Your task to perform on an android device: open a new tab in the chrome app Image 0: 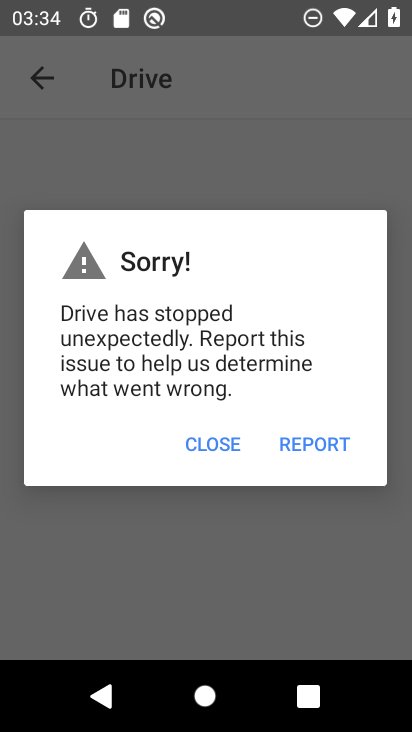
Step 0: press back button
Your task to perform on an android device: open a new tab in the chrome app Image 1: 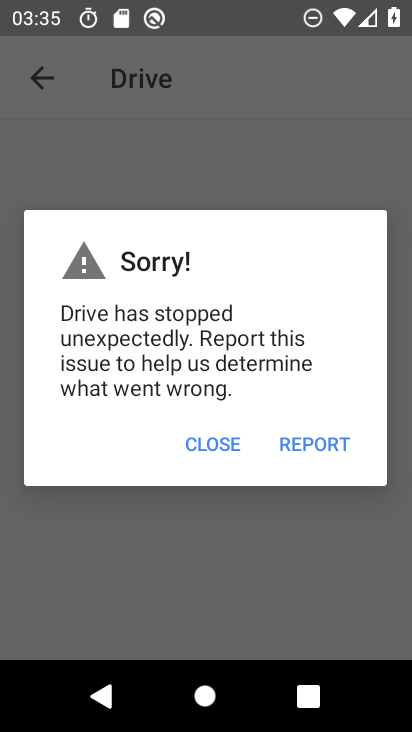
Step 1: press back button
Your task to perform on an android device: open a new tab in the chrome app Image 2: 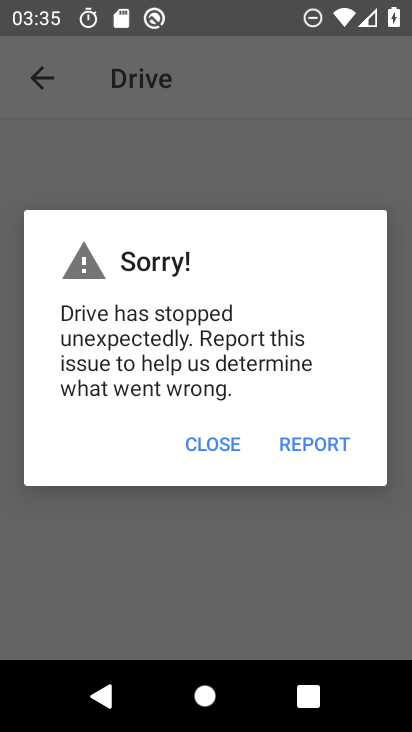
Step 2: press home button
Your task to perform on an android device: open a new tab in the chrome app Image 3: 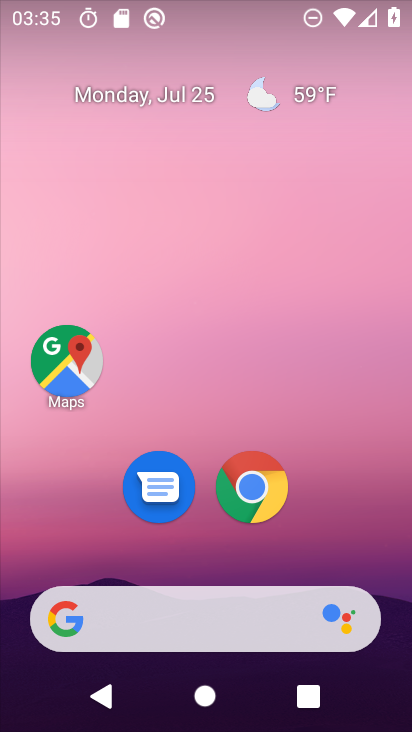
Step 3: click (245, 484)
Your task to perform on an android device: open a new tab in the chrome app Image 4: 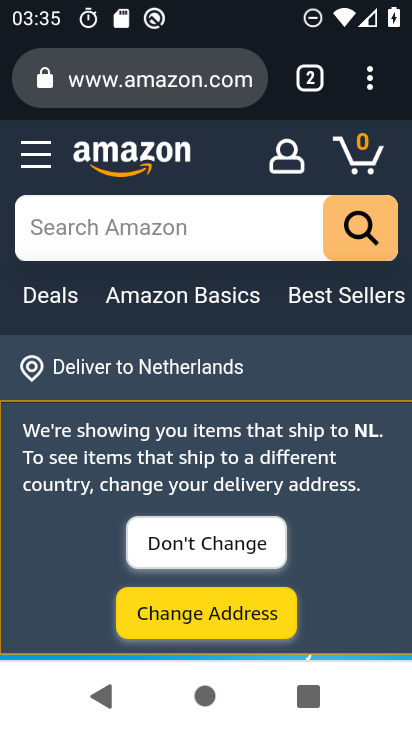
Step 4: click (316, 80)
Your task to perform on an android device: open a new tab in the chrome app Image 5: 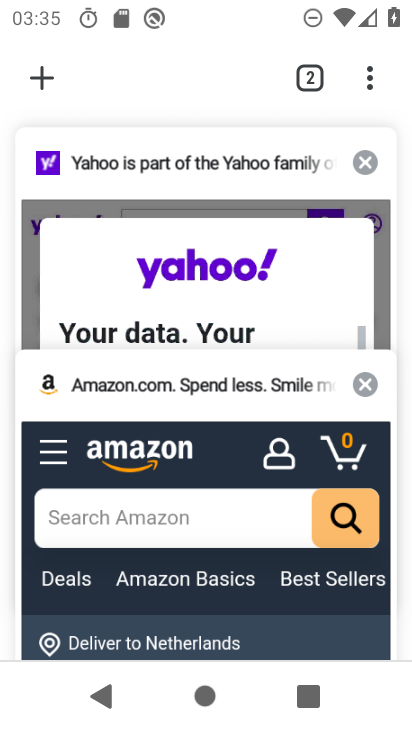
Step 5: click (50, 75)
Your task to perform on an android device: open a new tab in the chrome app Image 6: 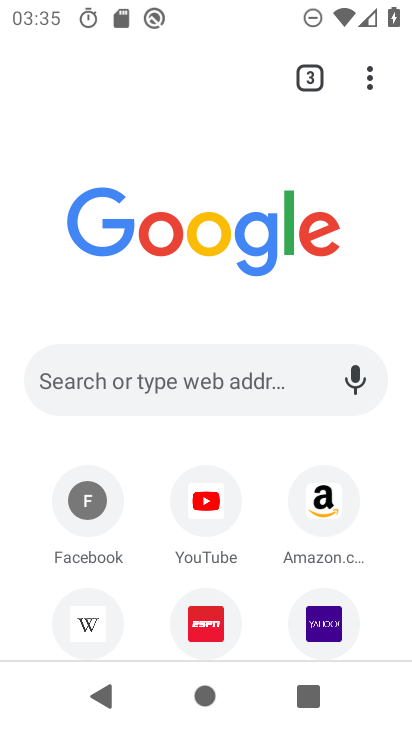
Step 6: task complete